Your task to perform on an android device: snooze an email in the gmail app Image 0: 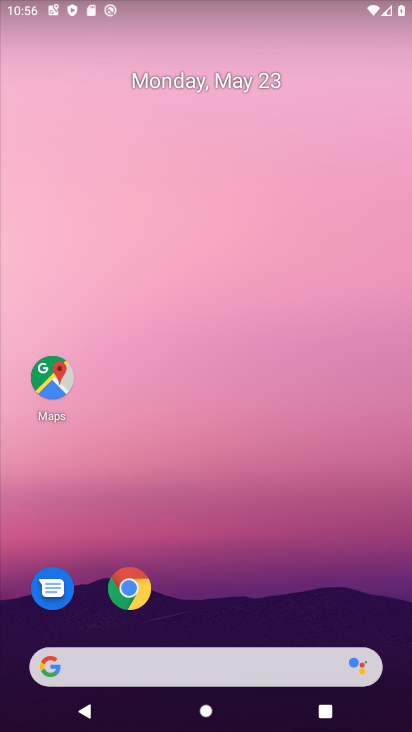
Step 0: drag from (290, 465) to (286, 156)
Your task to perform on an android device: snooze an email in the gmail app Image 1: 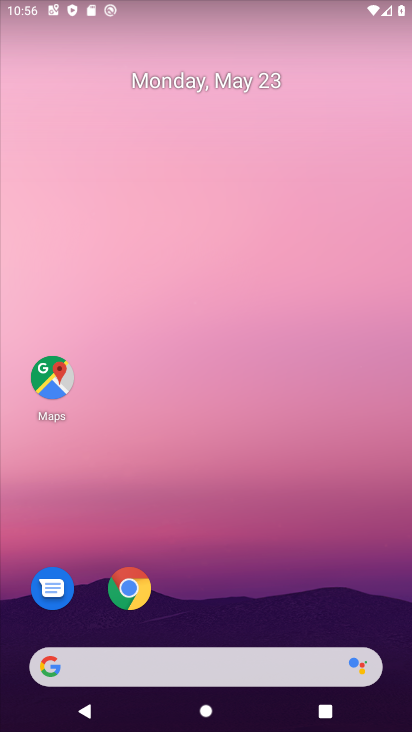
Step 1: drag from (305, 610) to (276, 174)
Your task to perform on an android device: snooze an email in the gmail app Image 2: 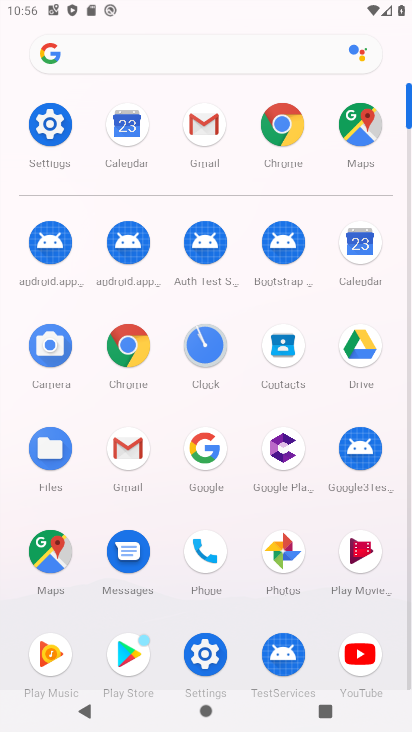
Step 2: click (129, 458)
Your task to perform on an android device: snooze an email in the gmail app Image 3: 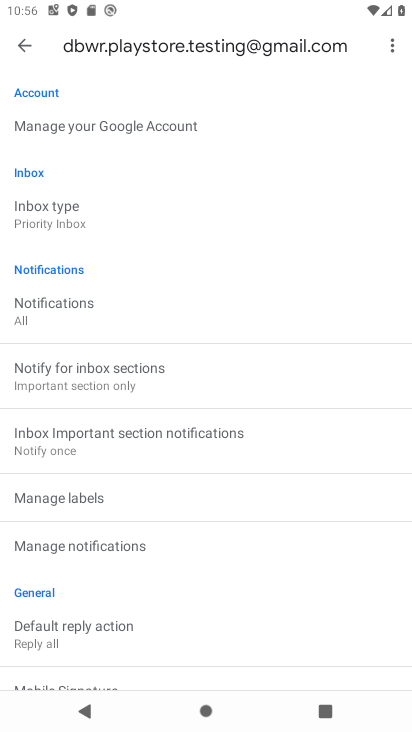
Step 3: click (25, 47)
Your task to perform on an android device: snooze an email in the gmail app Image 4: 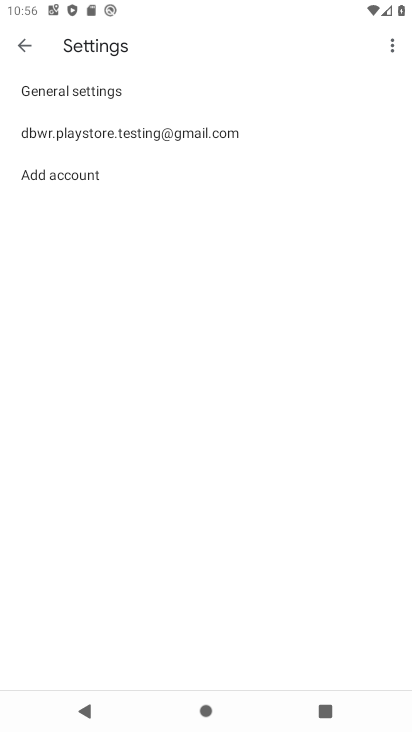
Step 4: click (25, 47)
Your task to perform on an android device: snooze an email in the gmail app Image 5: 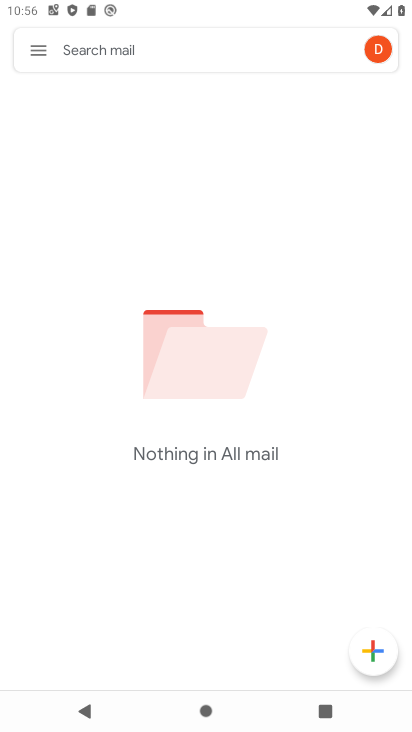
Step 5: task complete